Your task to perform on an android device: Go to location settings Image 0: 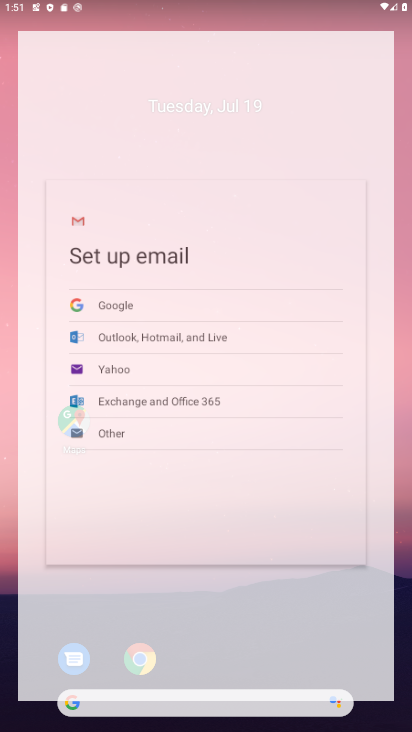
Step 0: press home button
Your task to perform on an android device: Go to location settings Image 1: 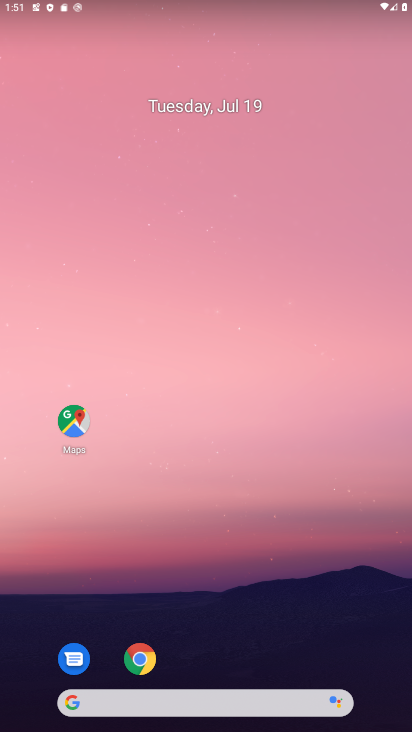
Step 1: drag from (235, 654) to (220, 25)
Your task to perform on an android device: Go to location settings Image 2: 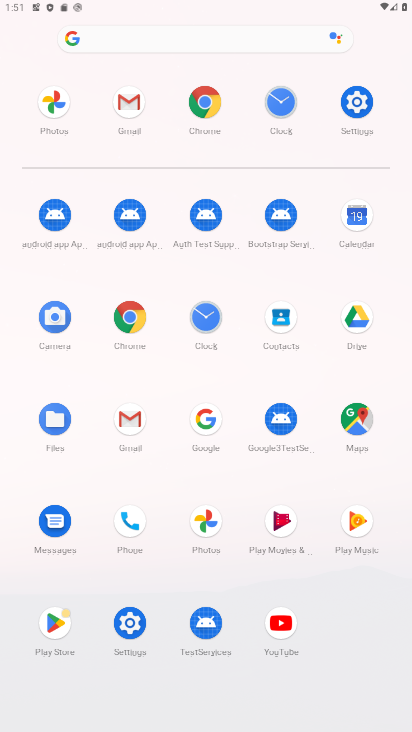
Step 2: click (124, 622)
Your task to perform on an android device: Go to location settings Image 3: 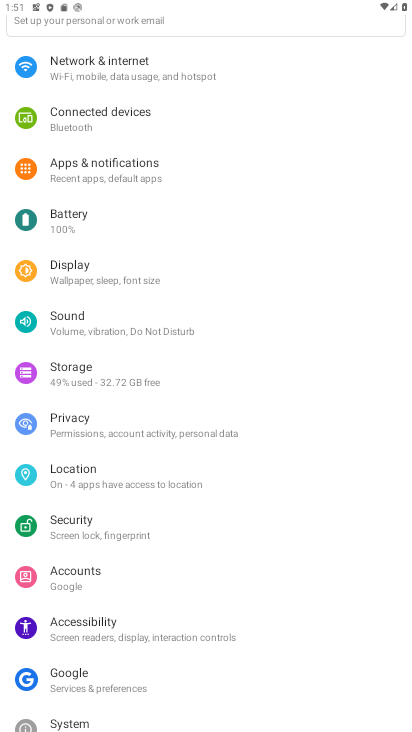
Step 3: click (90, 478)
Your task to perform on an android device: Go to location settings Image 4: 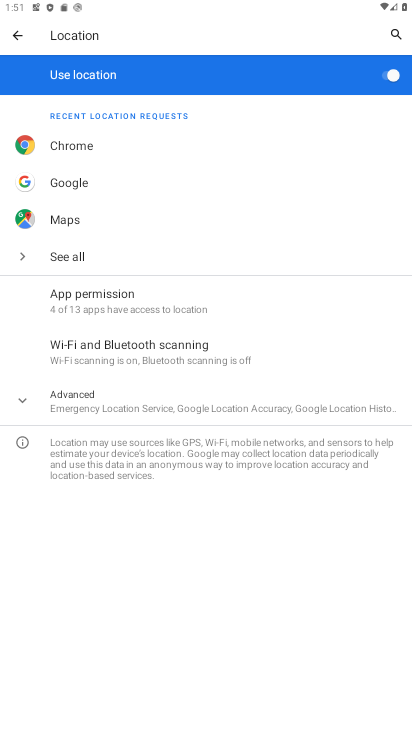
Step 4: task complete